Your task to perform on an android device: Check the weather Image 0: 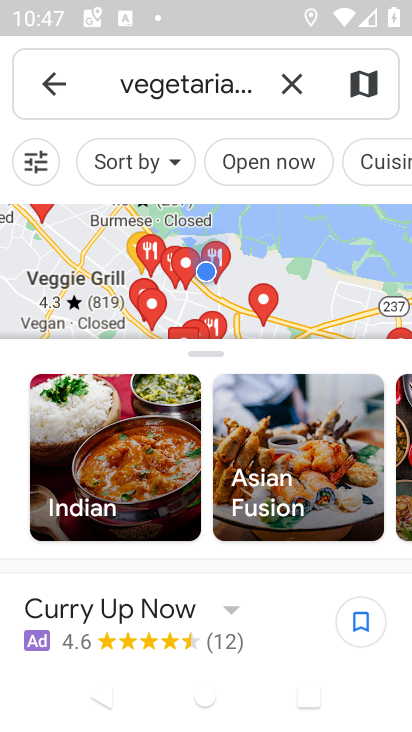
Step 0: press home button
Your task to perform on an android device: Check the weather Image 1: 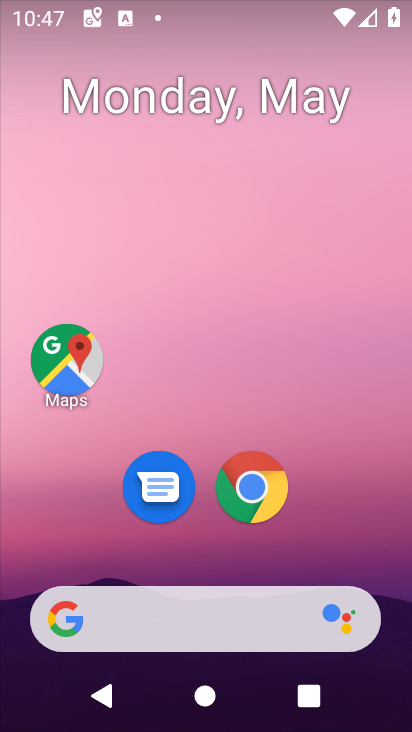
Step 1: drag from (292, 545) to (243, 152)
Your task to perform on an android device: Check the weather Image 2: 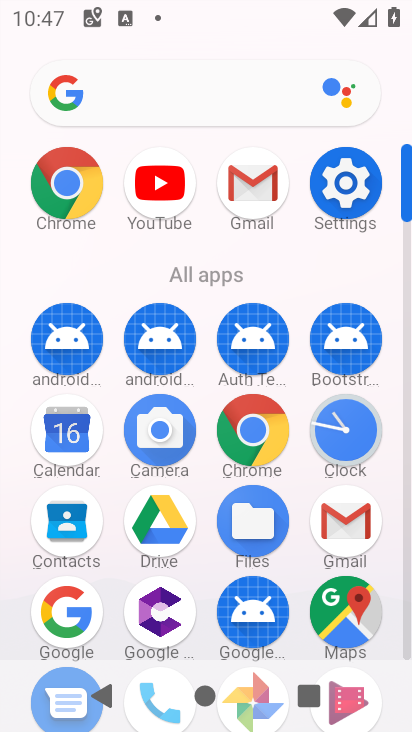
Step 2: click (56, 616)
Your task to perform on an android device: Check the weather Image 3: 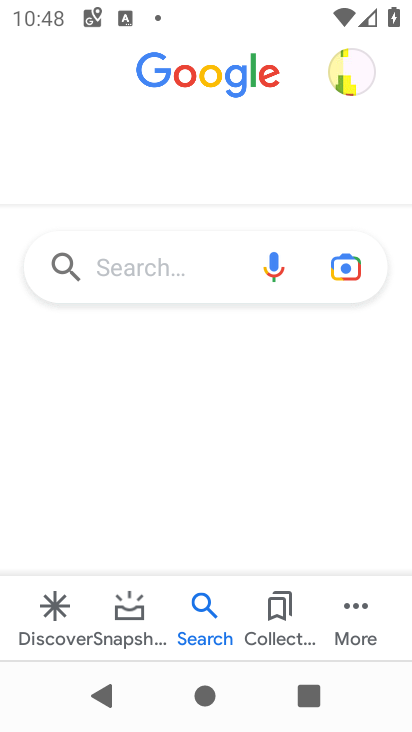
Step 3: click (128, 263)
Your task to perform on an android device: Check the weather Image 4: 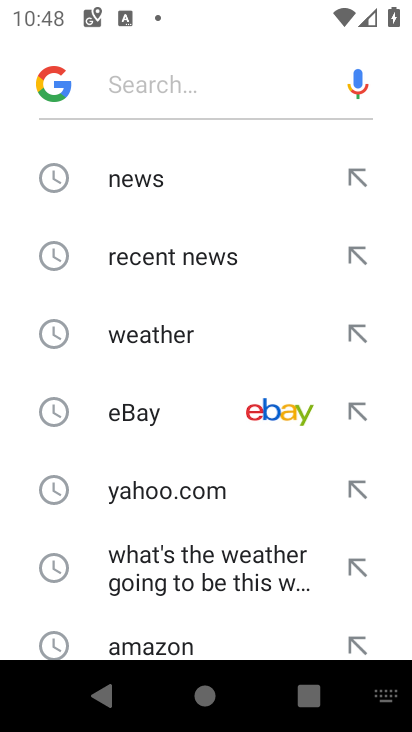
Step 4: click (152, 325)
Your task to perform on an android device: Check the weather Image 5: 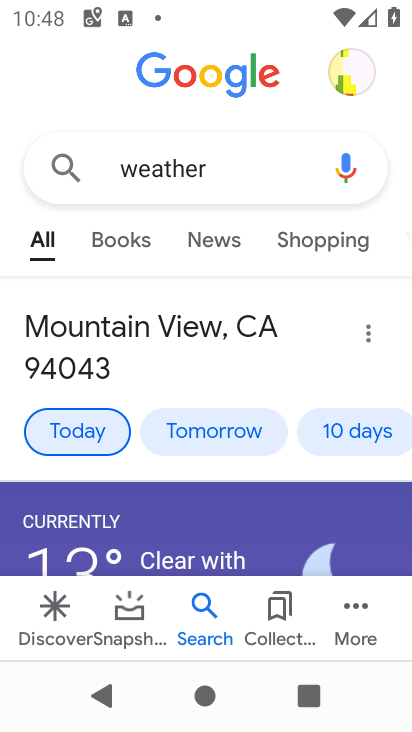
Step 5: task complete